Your task to perform on an android device: What's the weather going to be this weekend? Image 0: 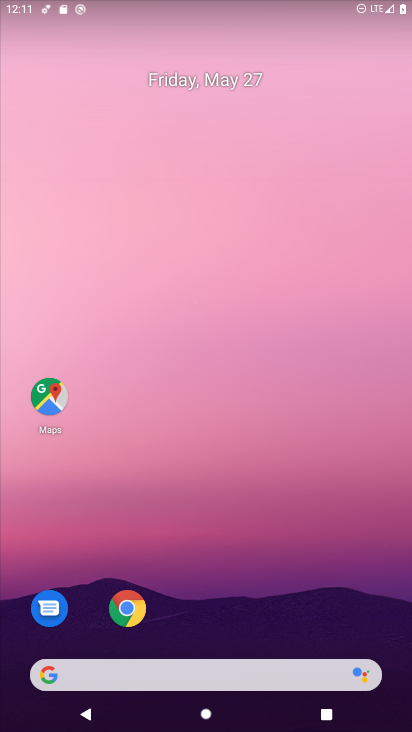
Step 0: press home button
Your task to perform on an android device: What's the weather going to be this weekend? Image 1: 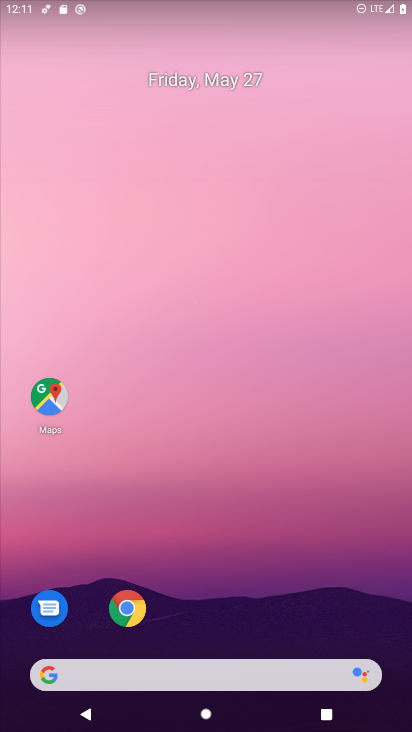
Step 1: click (51, 672)
Your task to perform on an android device: What's the weather going to be this weekend? Image 2: 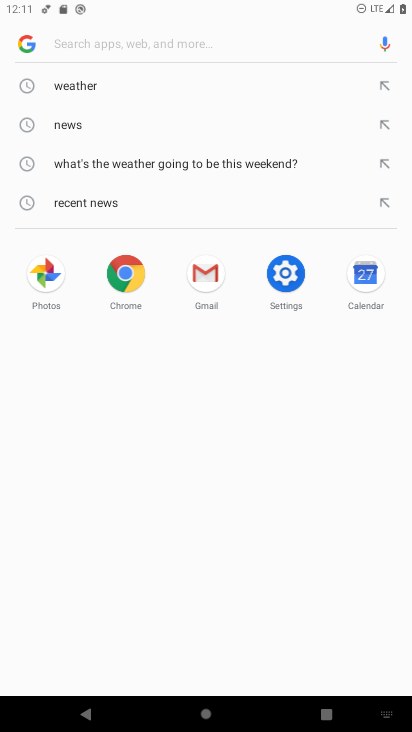
Step 2: click (95, 86)
Your task to perform on an android device: What's the weather going to be this weekend? Image 3: 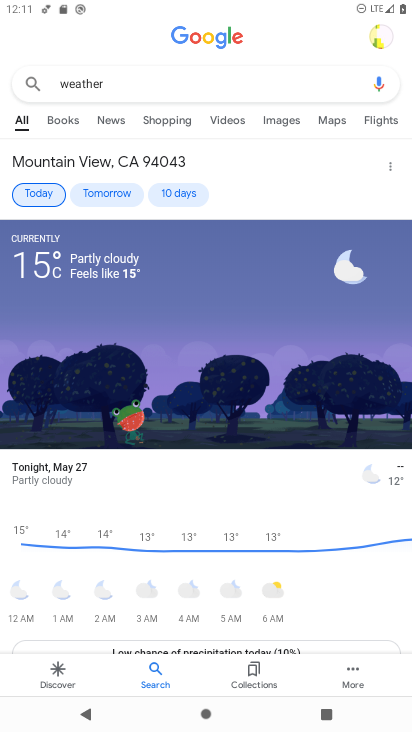
Step 3: click (185, 193)
Your task to perform on an android device: What's the weather going to be this weekend? Image 4: 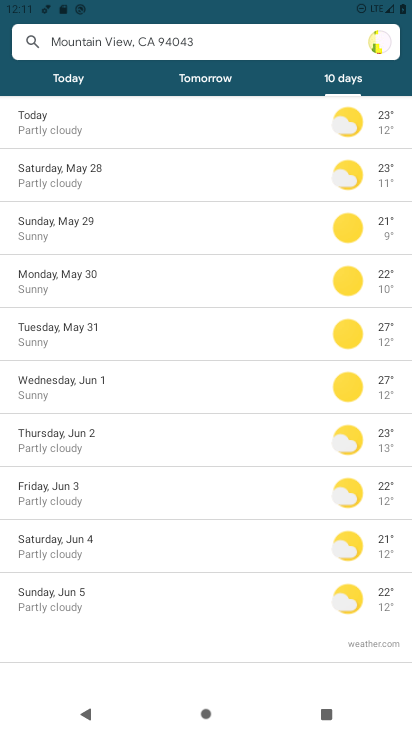
Step 4: click (123, 179)
Your task to perform on an android device: What's the weather going to be this weekend? Image 5: 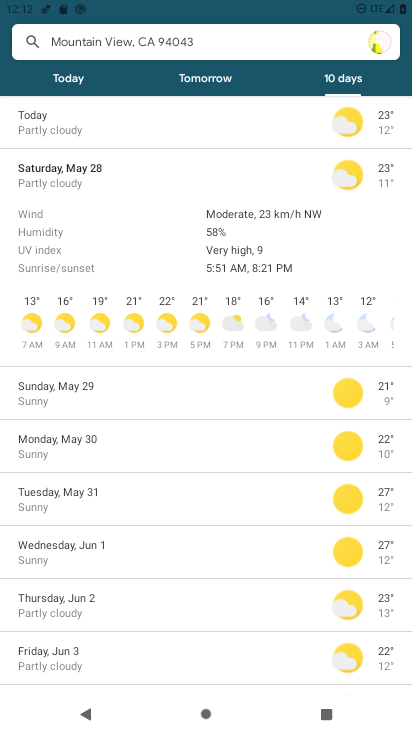
Step 5: task complete